Your task to perform on an android device: What's the weather today? Image 0: 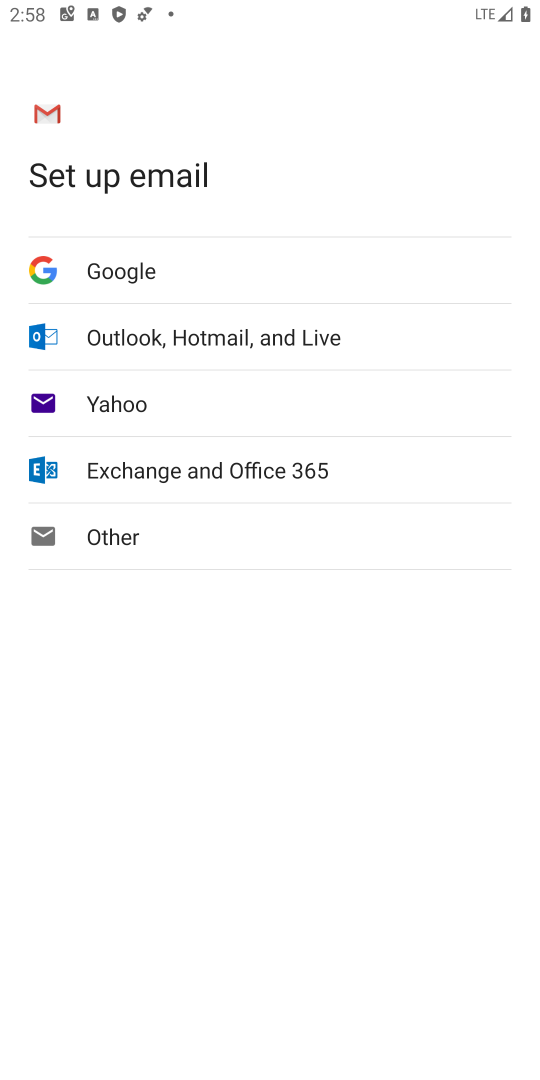
Step 0: press home button
Your task to perform on an android device: What's the weather today? Image 1: 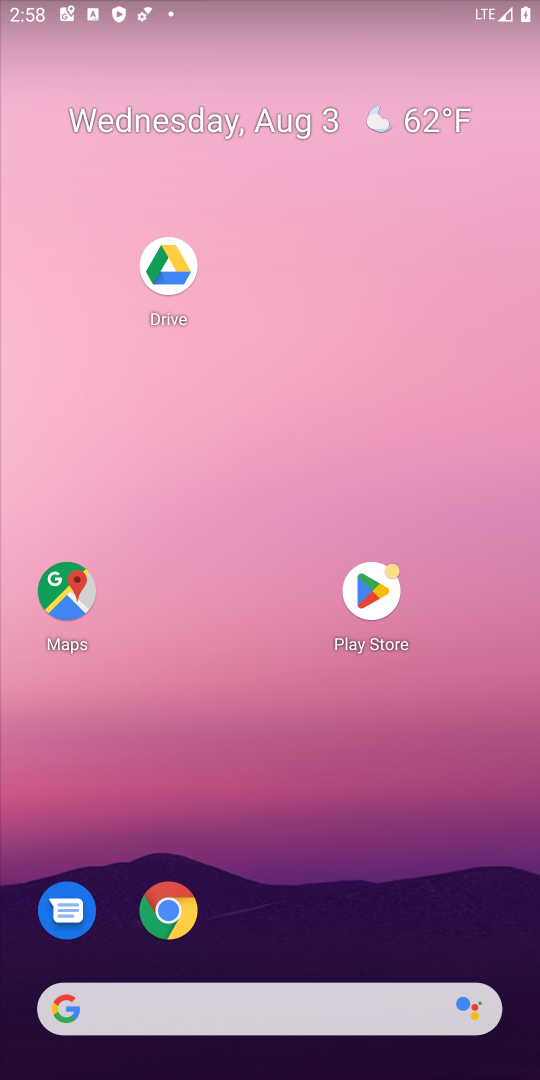
Step 1: drag from (299, 803) to (538, 579)
Your task to perform on an android device: What's the weather today? Image 2: 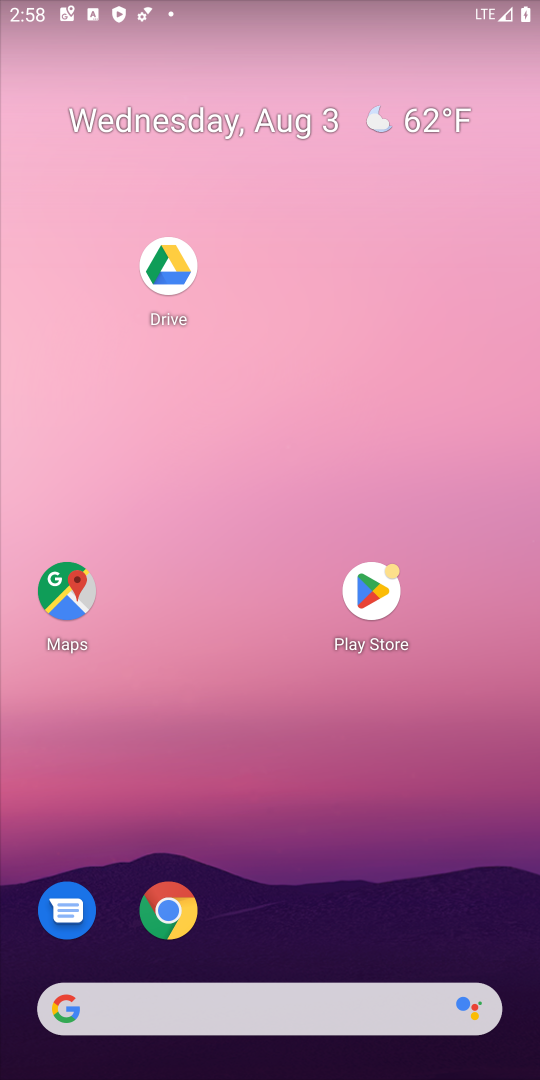
Step 2: drag from (249, 961) to (234, 3)
Your task to perform on an android device: What's the weather today? Image 3: 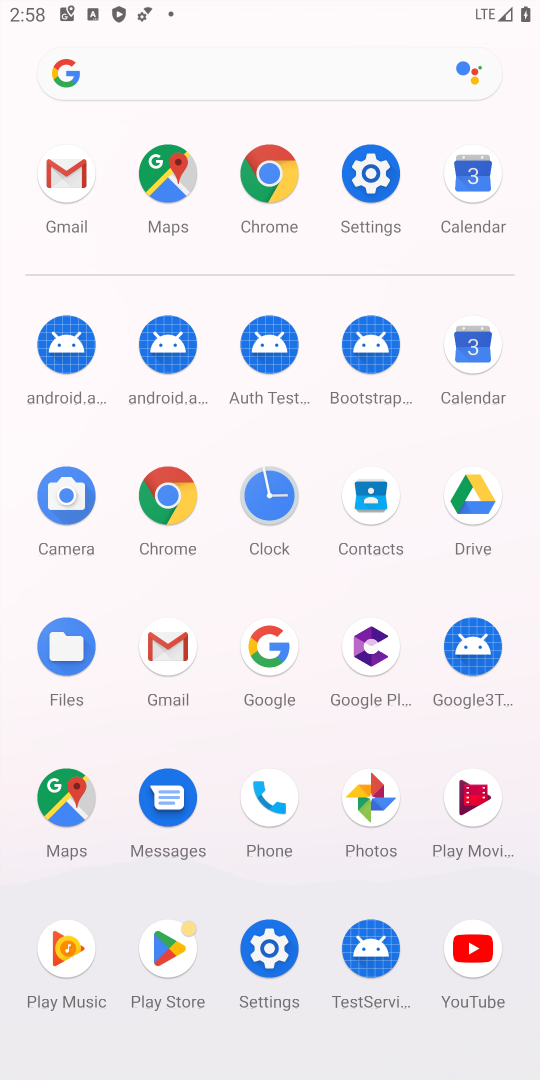
Step 3: click (178, 500)
Your task to perform on an android device: What's the weather today? Image 4: 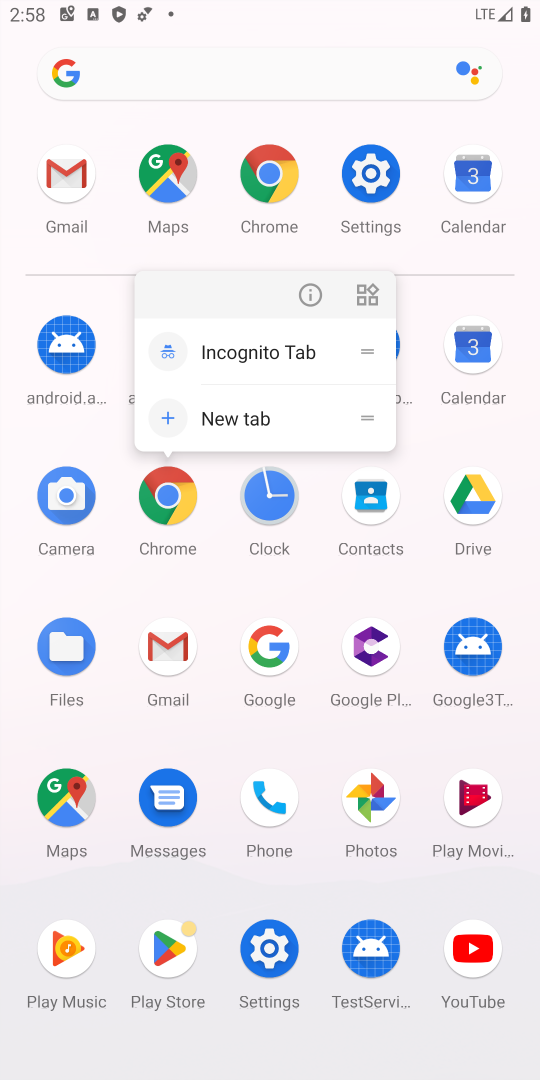
Step 4: click (191, 509)
Your task to perform on an android device: What's the weather today? Image 5: 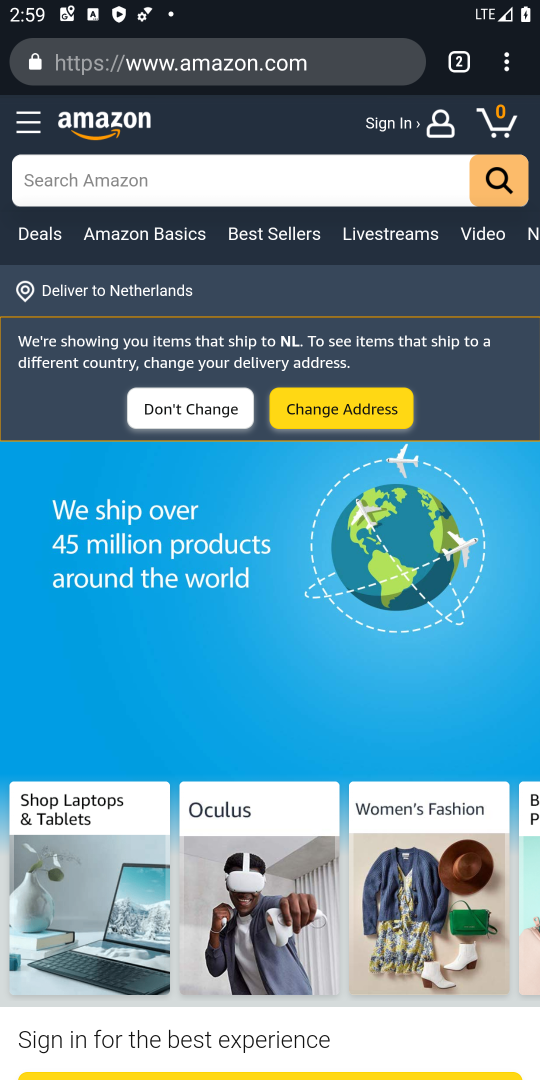
Step 5: click (286, 60)
Your task to perform on an android device: What's the weather today? Image 6: 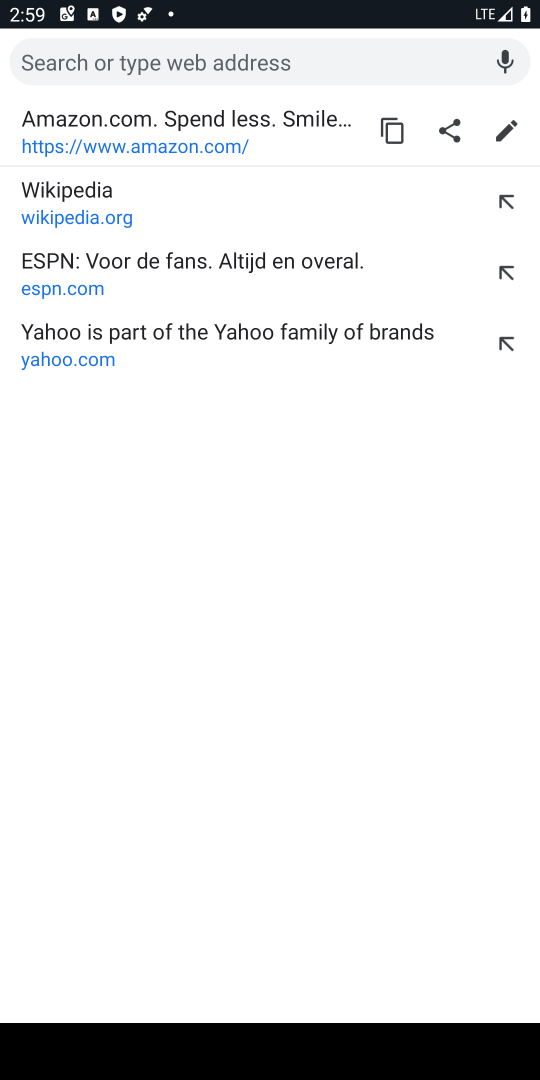
Step 6: type "weather today"
Your task to perform on an android device: What's the weather today? Image 7: 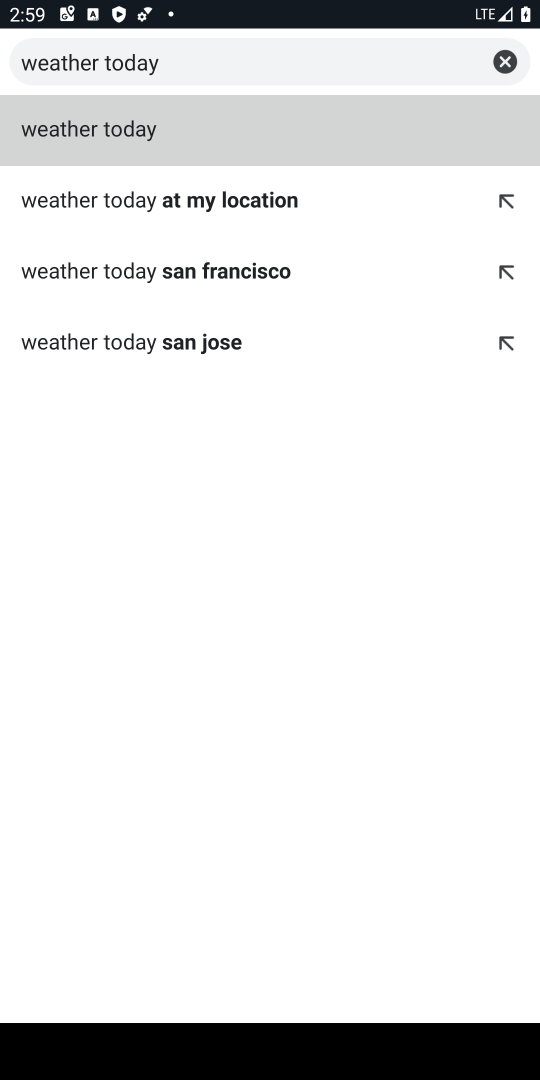
Step 7: click (261, 129)
Your task to perform on an android device: What's the weather today? Image 8: 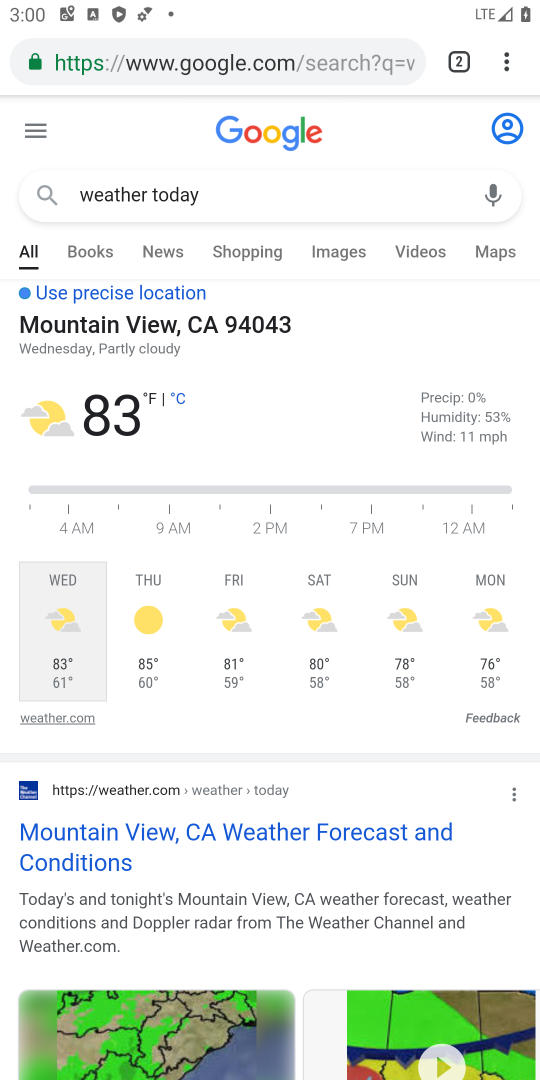
Step 8: task complete